Your task to perform on an android device: turn on translation in the chrome app Image 0: 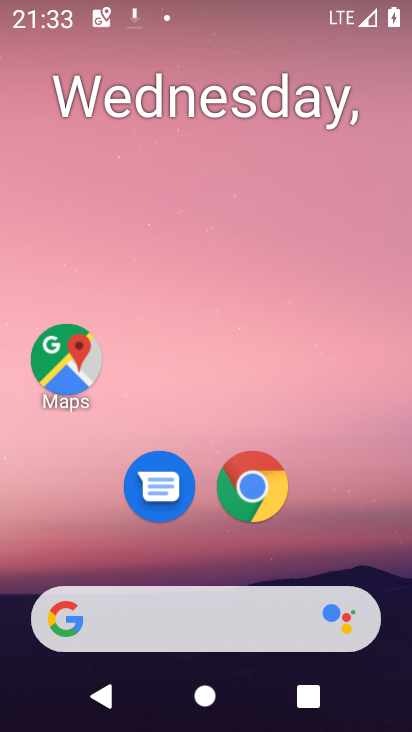
Step 0: click (259, 481)
Your task to perform on an android device: turn on translation in the chrome app Image 1: 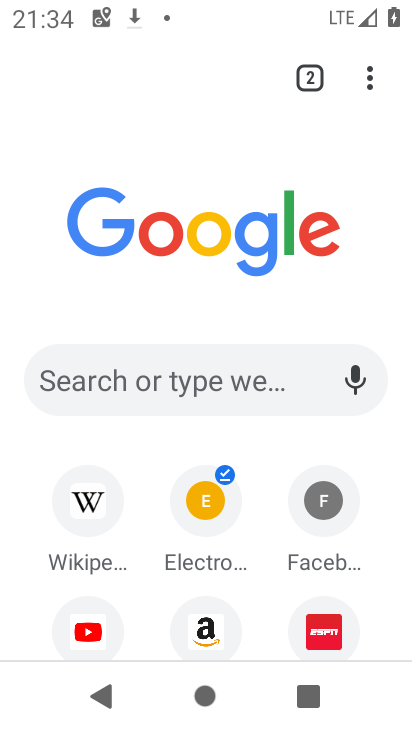
Step 1: drag from (366, 81) to (101, 546)
Your task to perform on an android device: turn on translation in the chrome app Image 2: 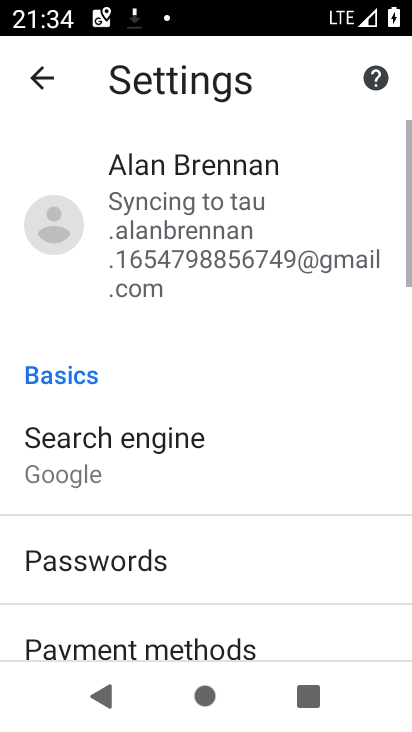
Step 2: drag from (188, 609) to (280, 64)
Your task to perform on an android device: turn on translation in the chrome app Image 3: 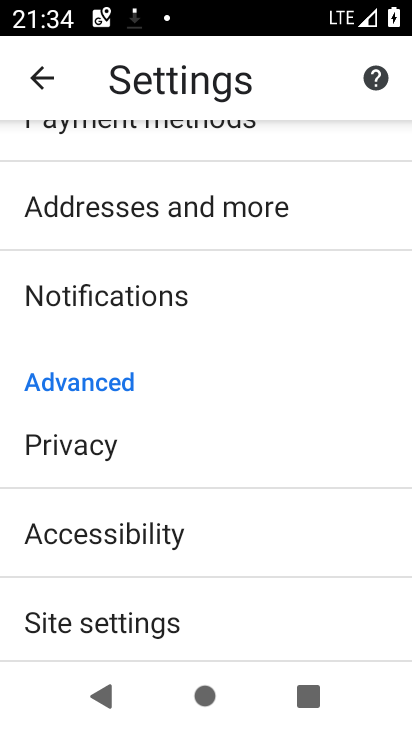
Step 3: drag from (96, 600) to (218, 175)
Your task to perform on an android device: turn on translation in the chrome app Image 4: 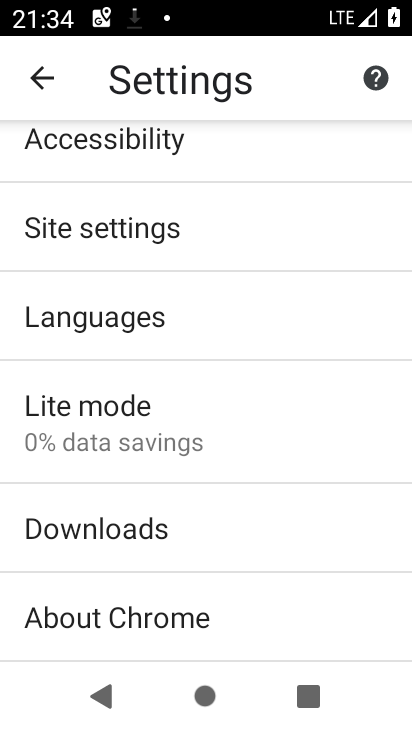
Step 4: click (115, 310)
Your task to perform on an android device: turn on translation in the chrome app Image 5: 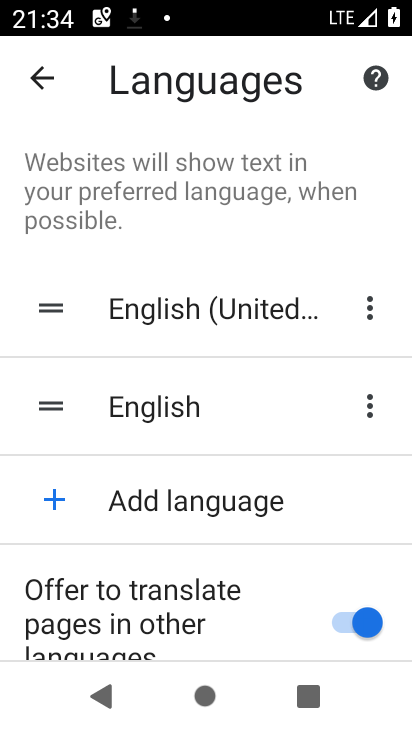
Step 5: task complete